Your task to perform on an android device: Empty the shopping cart on costco.com. Add razer thresher to the cart on costco.com, then select checkout. Image 0: 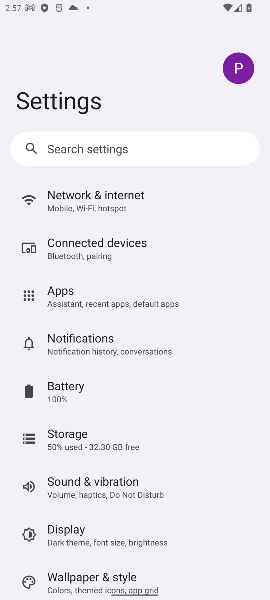
Step 0: press home button
Your task to perform on an android device: Empty the shopping cart on costco.com. Add razer thresher to the cart on costco.com, then select checkout. Image 1: 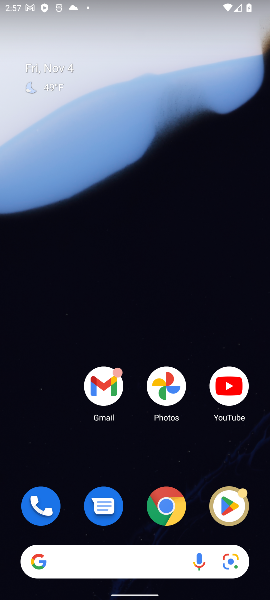
Step 1: drag from (146, 476) to (56, 124)
Your task to perform on an android device: Empty the shopping cart on costco.com. Add razer thresher to the cart on costco.com, then select checkout. Image 2: 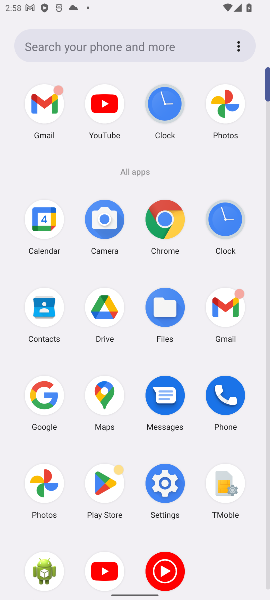
Step 2: click (162, 216)
Your task to perform on an android device: Empty the shopping cart on costco.com. Add razer thresher to the cart on costco.com, then select checkout. Image 3: 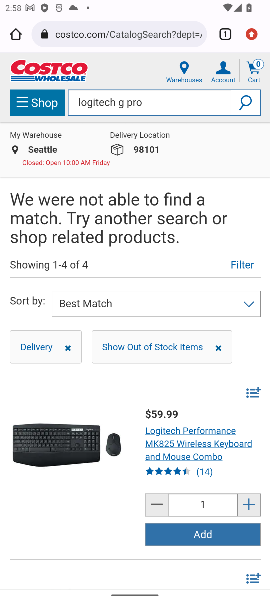
Step 3: click (158, 33)
Your task to perform on an android device: Empty the shopping cart on costco.com. Add razer thresher to the cart on costco.com, then select checkout. Image 4: 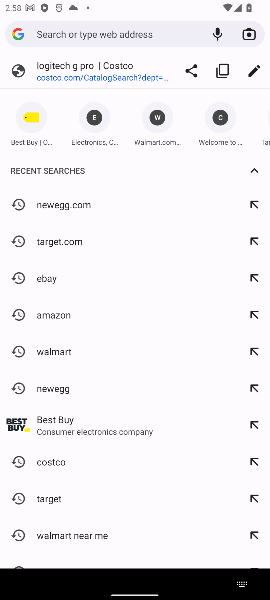
Step 4: type "costco.com"
Your task to perform on an android device: Empty the shopping cart on costco.com. Add razer thresher to the cart on costco.com, then select checkout. Image 5: 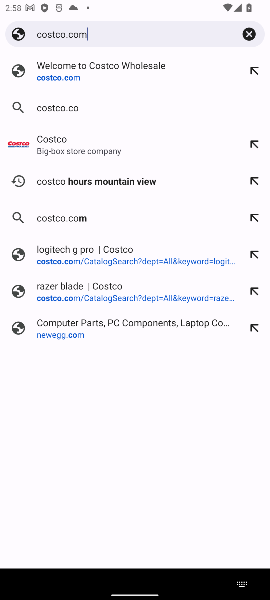
Step 5: press enter
Your task to perform on an android device: Empty the shopping cart on costco.com. Add razer thresher to the cart on costco.com, then select checkout. Image 6: 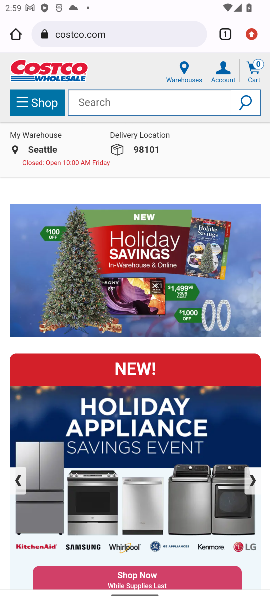
Step 6: click (153, 96)
Your task to perform on an android device: Empty the shopping cart on costco.com. Add razer thresher to the cart on costco.com, then select checkout. Image 7: 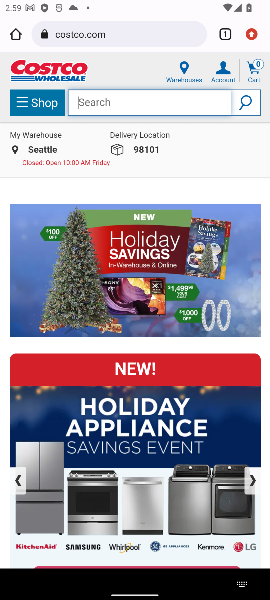
Step 7: type "razer thresher"
Your task to perform on an android device: Empty the shopping cart on costco.com. Add razer thresher to the cart on costco.com, then select checkout. Image 8: 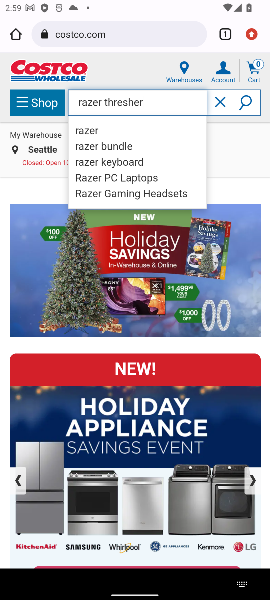
Step 8: press enter
Your task to perform on an android device: Empty the shopping cart on costco.com. Add razer thresher to the cart on costco.com, then select checkout. Image 9: 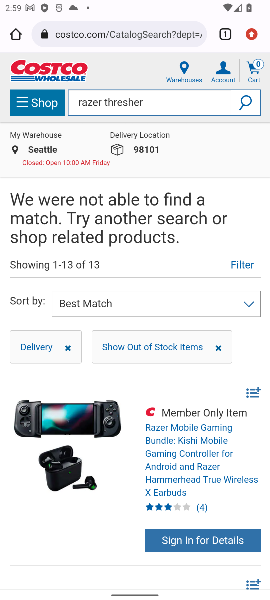
Step 9: task complete